Your task to perform on an android device: Open maps Image 0: 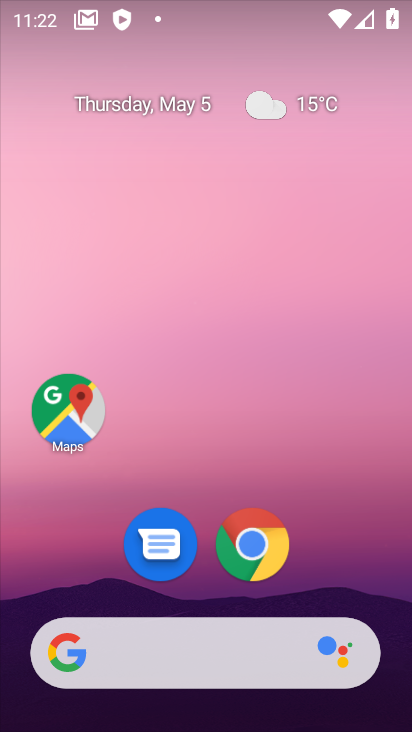
Step 0: click (66, 410)
Your task to perform on an android device: Open maps Image 1: 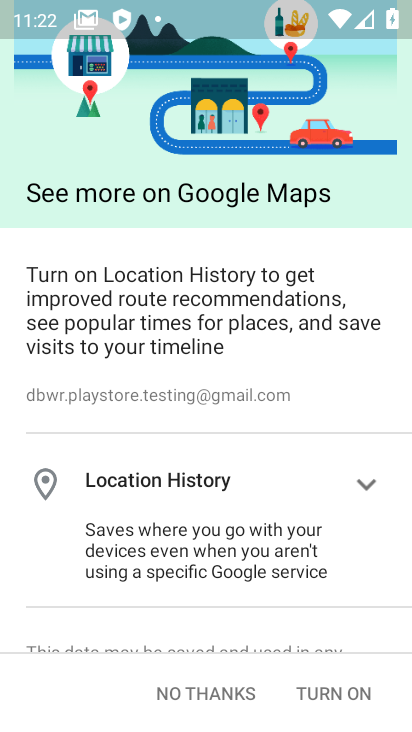
Step 1: click (202, 698)
Your task to perform on an android device: Open maps Image 2: 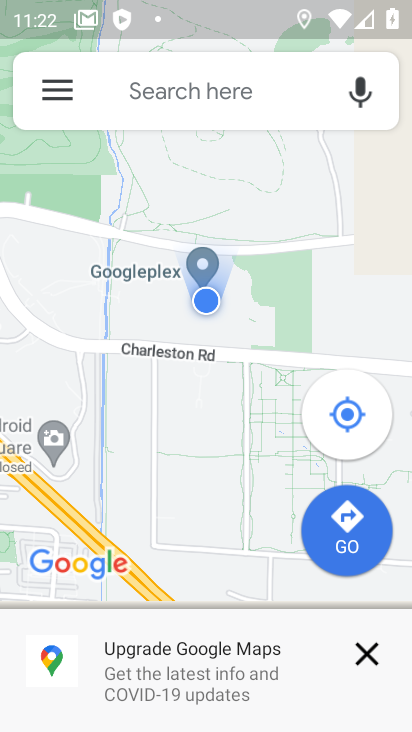
Step 2: click (357, 665)
Your task to perform on an android device: Open maps Image 3: 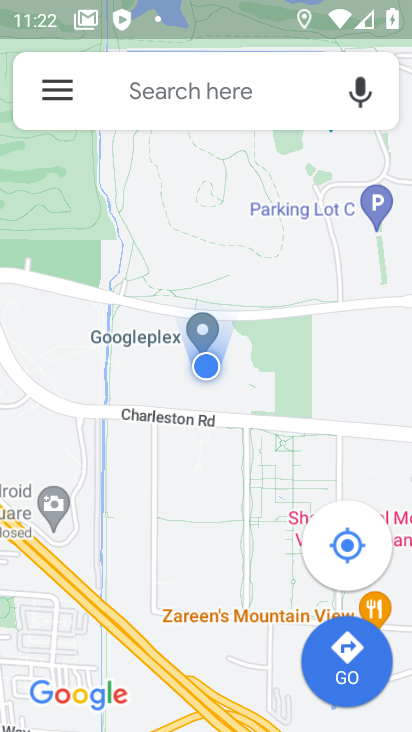
Step 3: task complete